Your task to perform on an android device: turn on priority inbox in the gmail app Image 0: 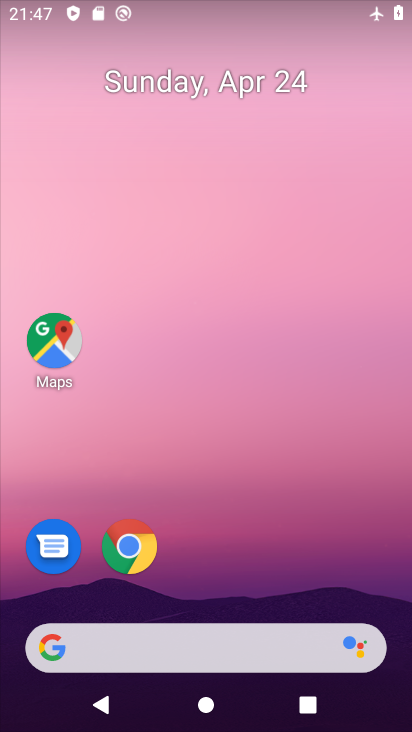
Step 0: drag from (290, 603) to (289, 247)
Your task to perform on an android device: turn on priority inbox in the gmail app Image 1: 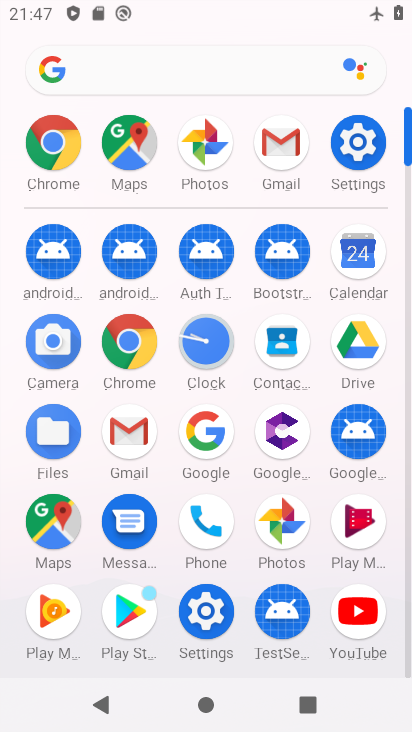
Step 1: click (122, 430)
Your task to perform on an android device: turn on priority inbox in the gmail app Image 2: 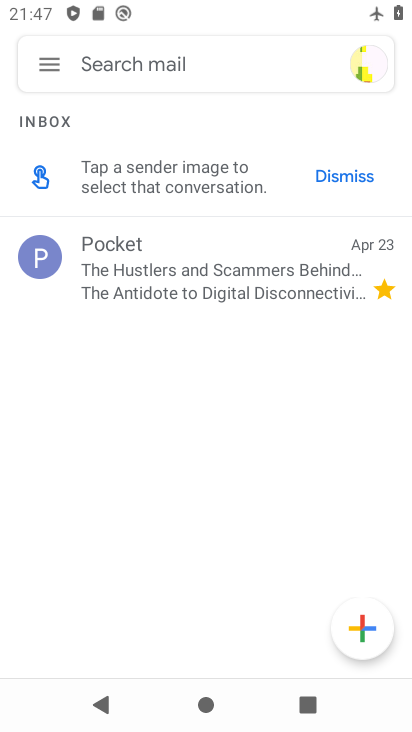
Step 2: click (35, 65)
Your task to perform on an android device: turn on priority inbox in the gmail app Image 3: 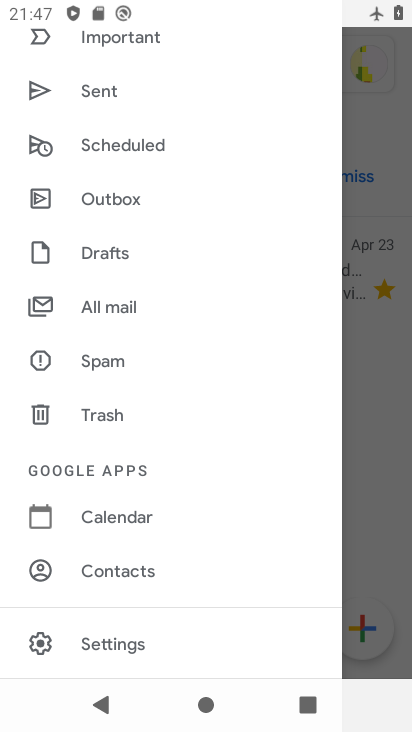
Step 3: click (156, 645)
Your task to perform on an android device: turn on priority inbox in the gmail app Image 4: 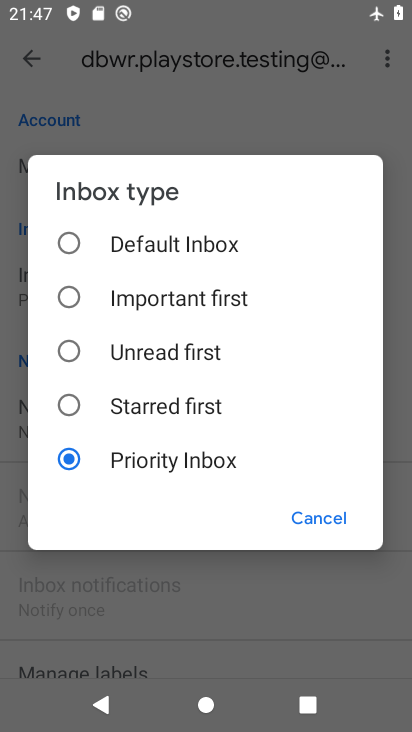
Step 4: task complete